Your task to perform on an android device: turn on wifi Image 0: 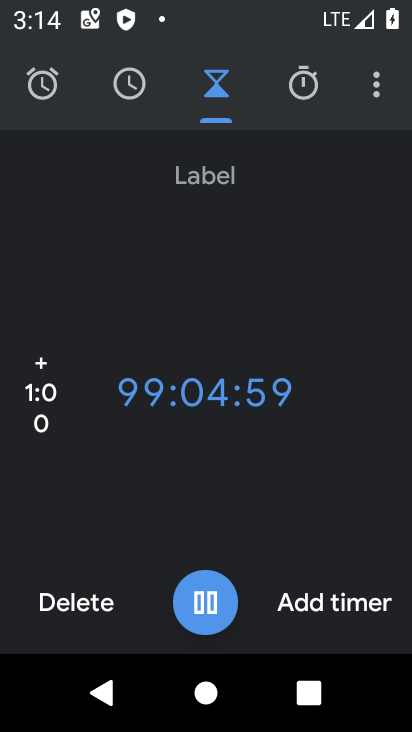
Step 0: press home button
Your task to perform on an android device: turn on wifi Image 1: 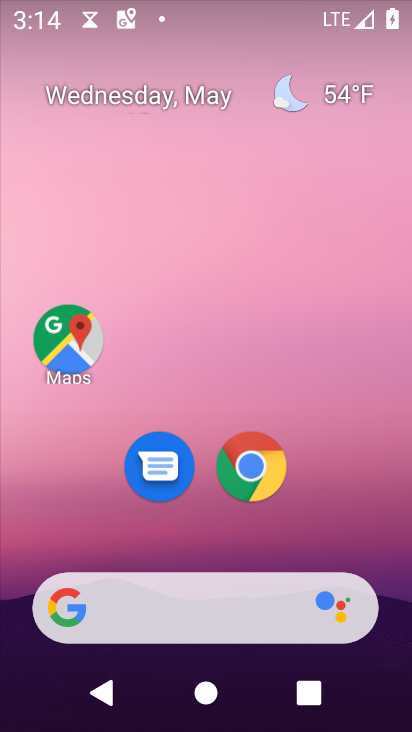
Step 1: drag from (289, 187) to (276, 123)
Your task to perform on an android device: turn on wifi Image 2: 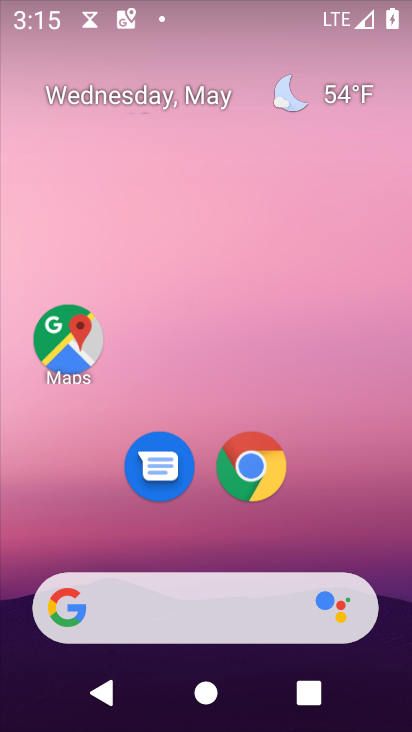
Step 2: drag from (377, 561) to (255, 190)
Your task to perform on an android device: turn on wifi Image 3: 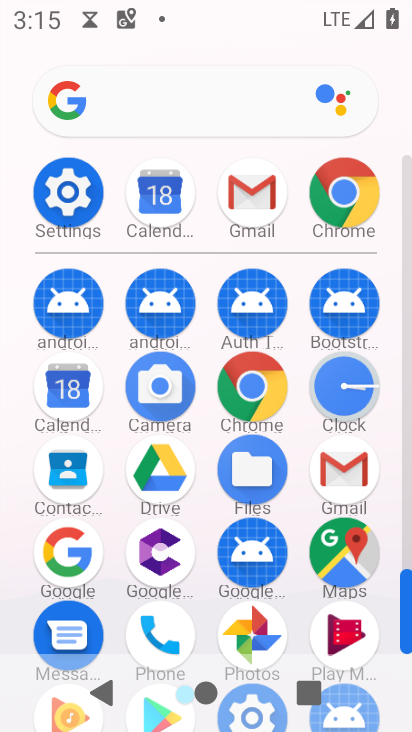
Step 3: click (87, 179)
Your task to perform on an android device: turn on wifi Image 4: 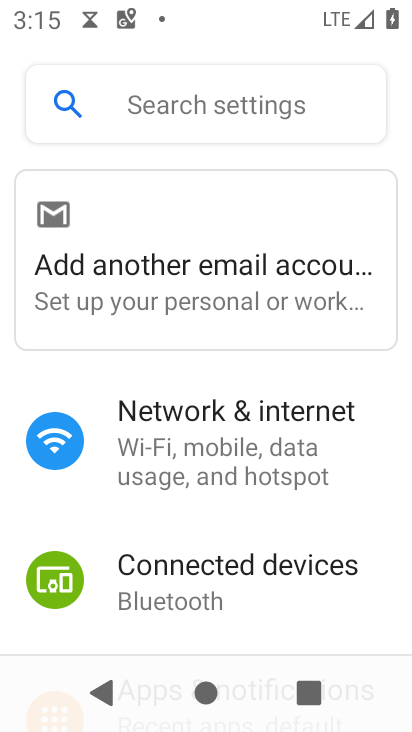
Step 4: click (270, 475)
Your task to perform on an android device: turn on wifi Image 5: 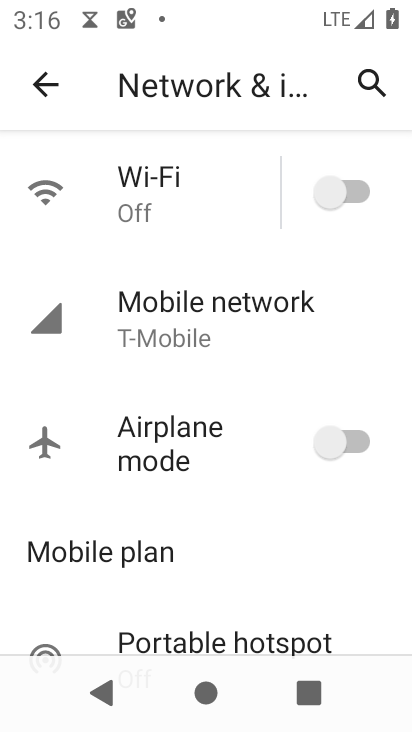
Step 5: click (347, 193)
Your task to perform on an android device: turn on wifi Image 6: 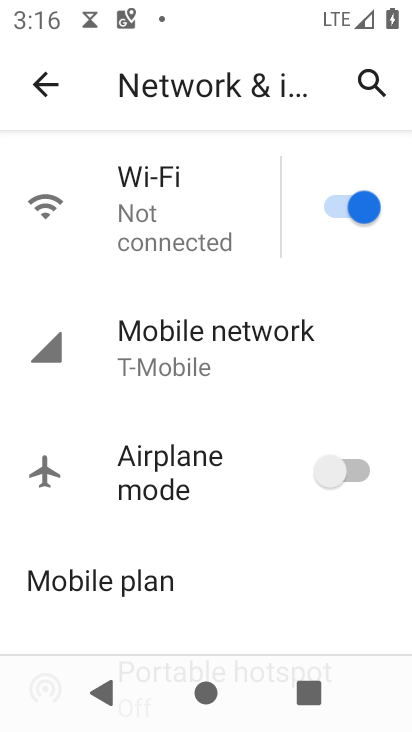
Step 6: task complete